Your task to perform on an android device: View the shopping cart on ebay. Image 0: 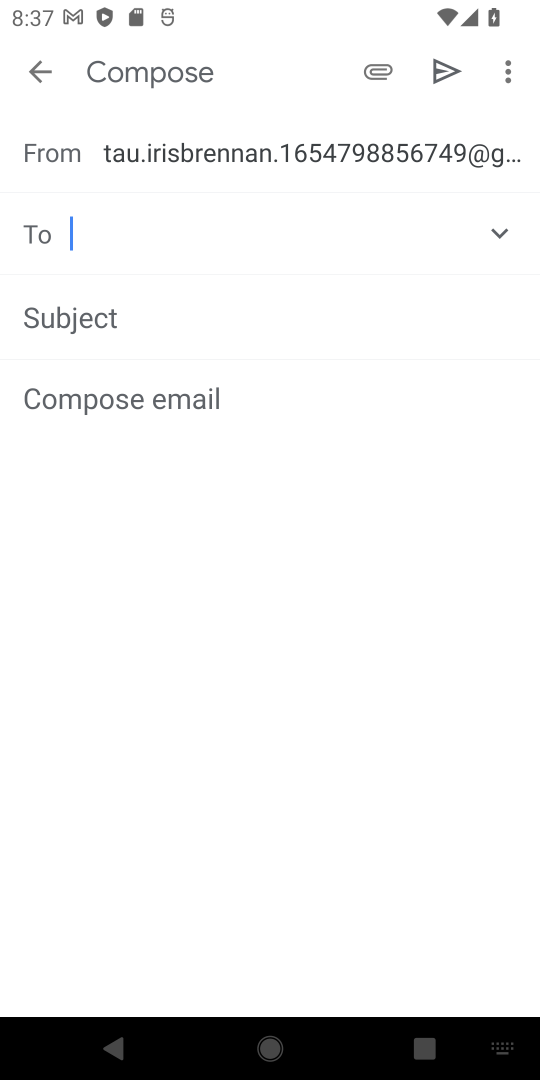
Step 0: press home button
Your task to perform on an android device: View the shopping cart on ebay. Image 1: 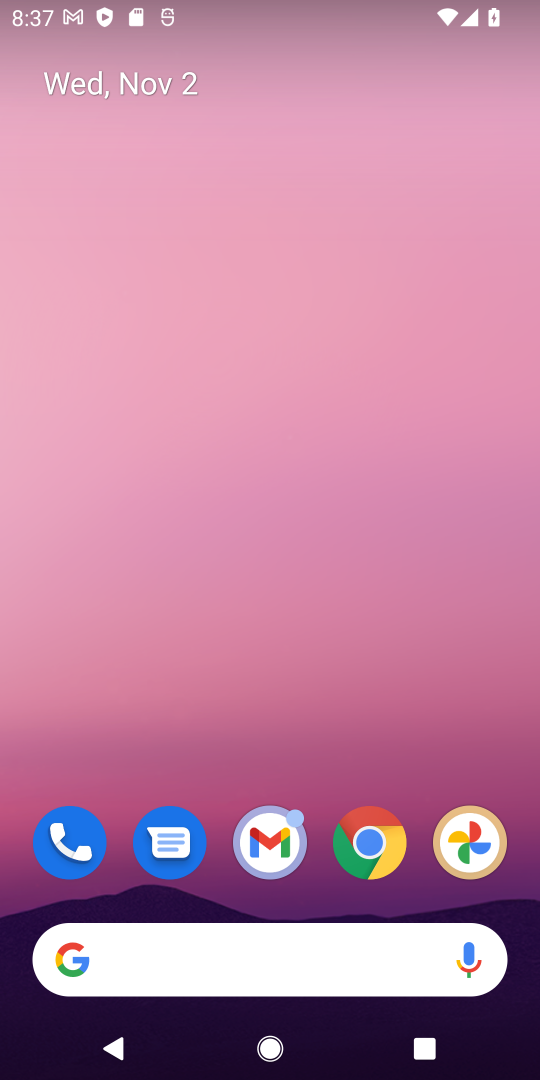
Step 1: drag from (209, 833) to (313, 144)
Your task to perform on an android device: View the shopping cart on ebay. Image 2: 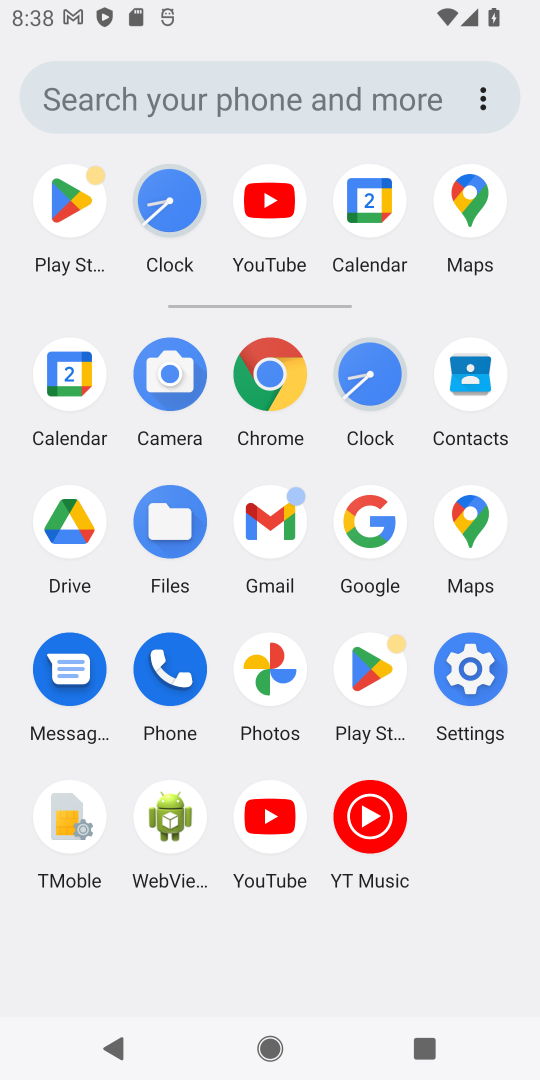
Step 2: click (358, 527)
Your task to perform on an android device: View the shopping cart on ebay. Image 3: 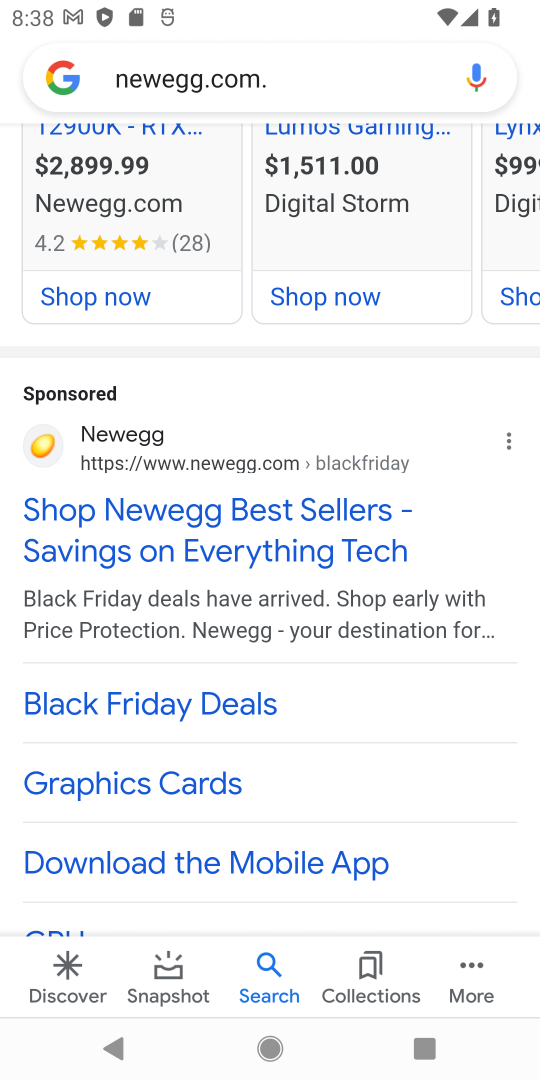
Step 3: click (314, 86)
Your task to perform on an android device: View the shopping cart on ebay. Image 4: 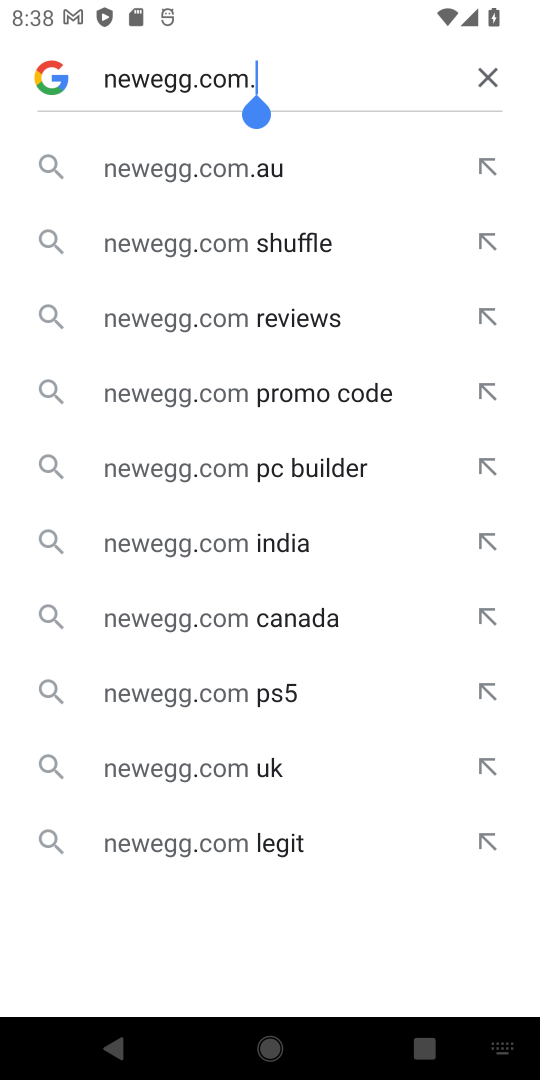
Step 4: click (493, 78)
Your task to perform on an android device: View the shopping cart on ebay. Image 5: 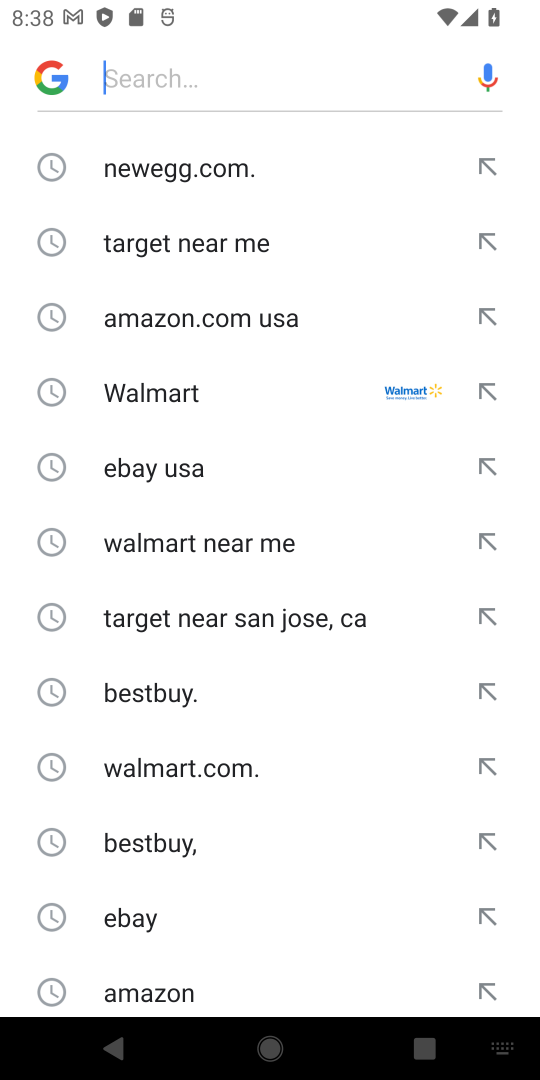
Step 5: click (165, 450)
Your task to perform on an android device: View the shopping cart on ebay. Image 6: 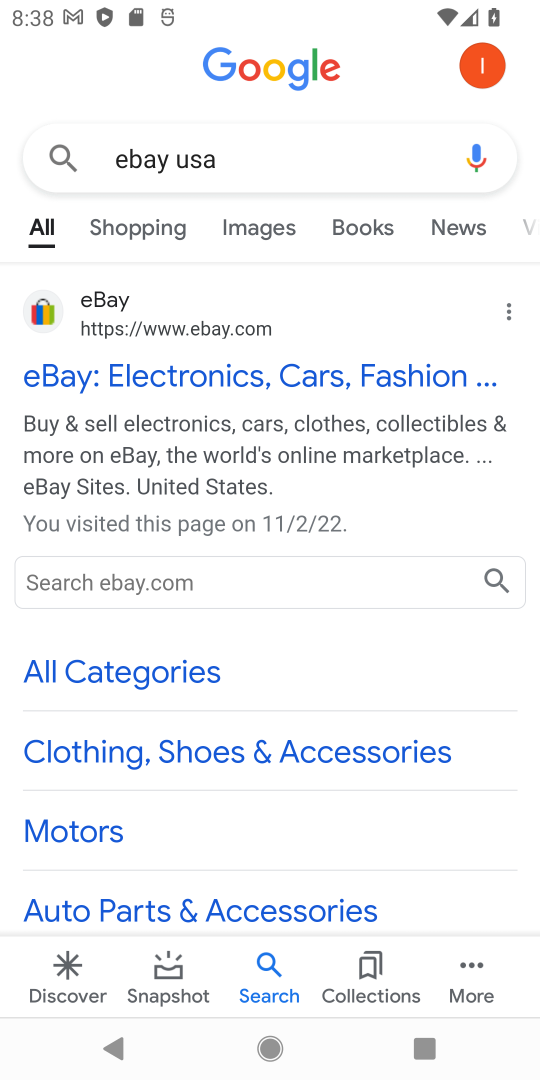
Step 6: click (38, 307)
Your task to perform on an android device: View the shopping cart on ebay. Image 7: 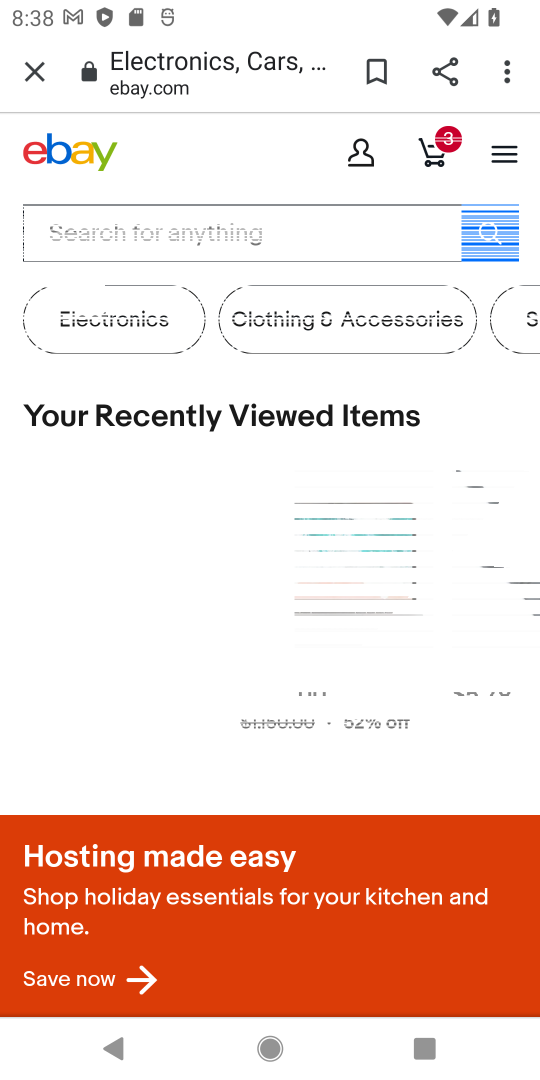
Step 7: click (435, 141)
Your task to perform on an android device: View the shopping cart on ebay. Image 8: 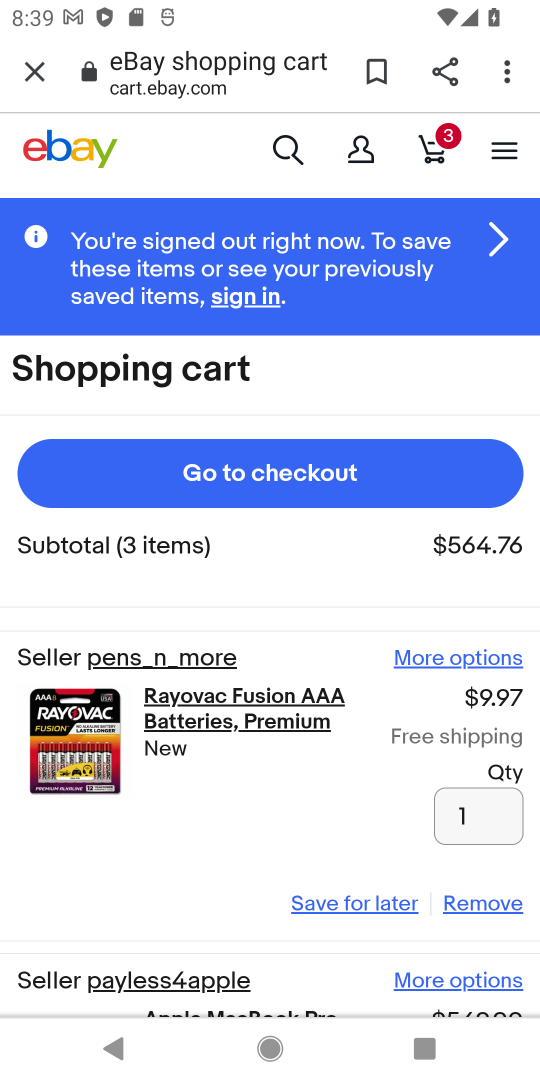
Step 8: click (424, 141)
Your task to perform on an android device: View the shopping cart on ebay. Image 9: 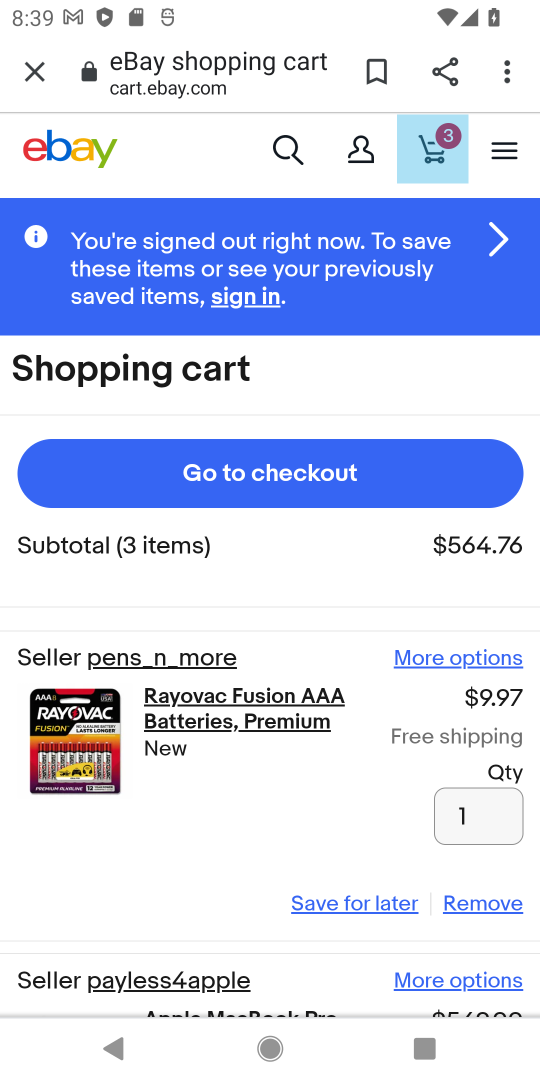
Step 9: click (429, 136)
Your task to perform on an android device: View the shopping cart on ebay. Image 10: 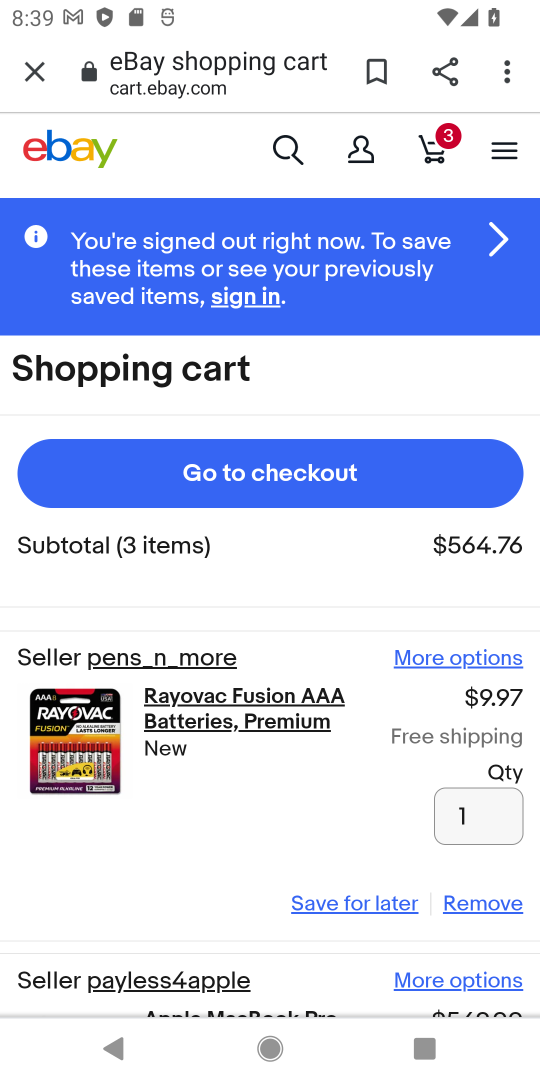
Step 10: task complete